Your task to perform on an android device: check google app version Image 0: 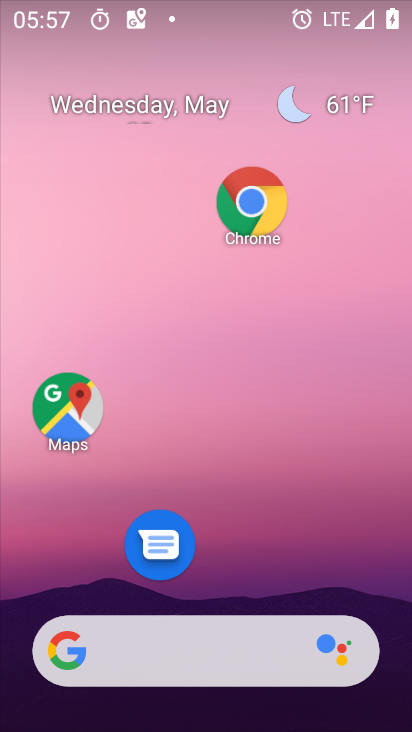
Step 0: drag from (221, 616) to (220, 198)
Your task to perform on an android device: check google app version Image 1: 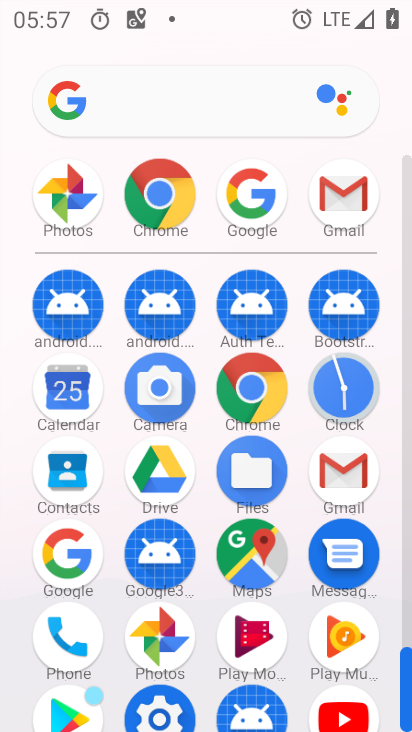
Step 1: click (59, 558)
Your task to perform on an android device: check google app version Image 2: 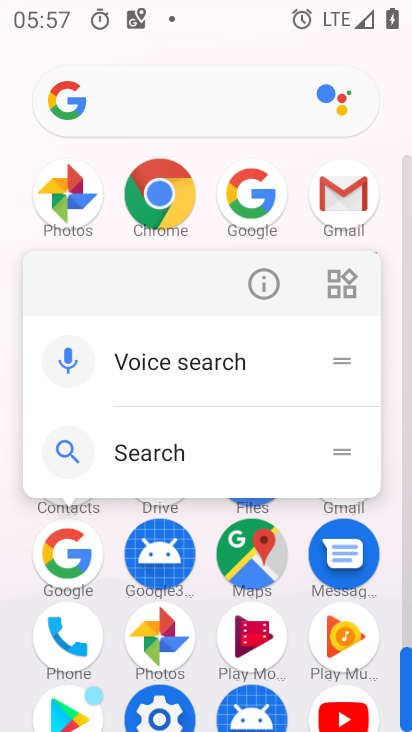
Step 2: click (261, 285)
Your task to perform on an android device: check google app version Image 3: 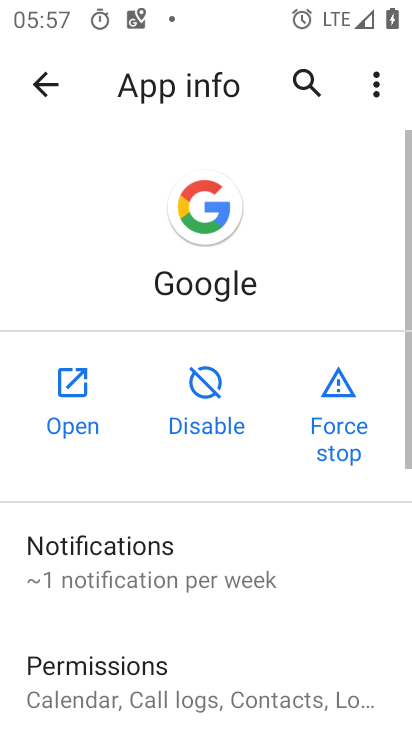
Step 3: drag from (196, 700) to (200, 409)
Your task to perform on an android device: check google app version Image 4: 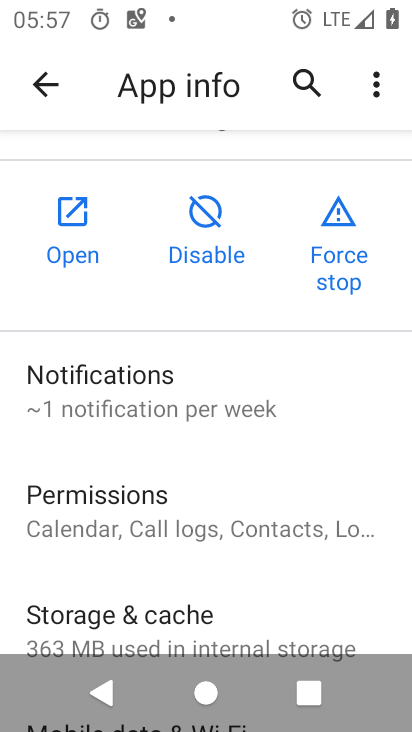
Step 4: drag from (201, 622) to (201, 342)
Your task to perform on an android device: check google app version Image 5: 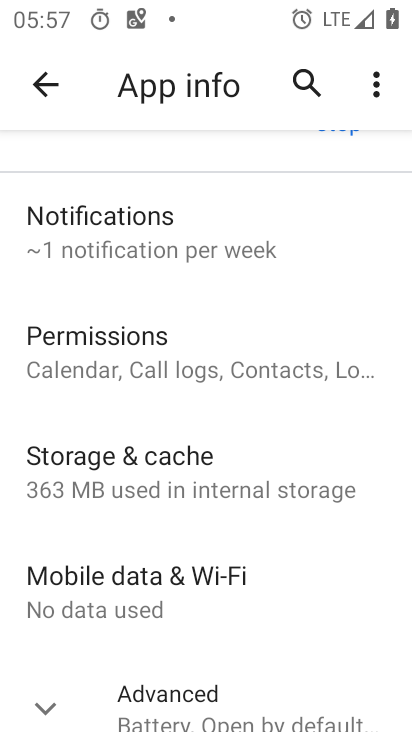
Step 5: drag from (195, 709) to (198, 498)
Your task to perform on an android device: check google app version Image 6: 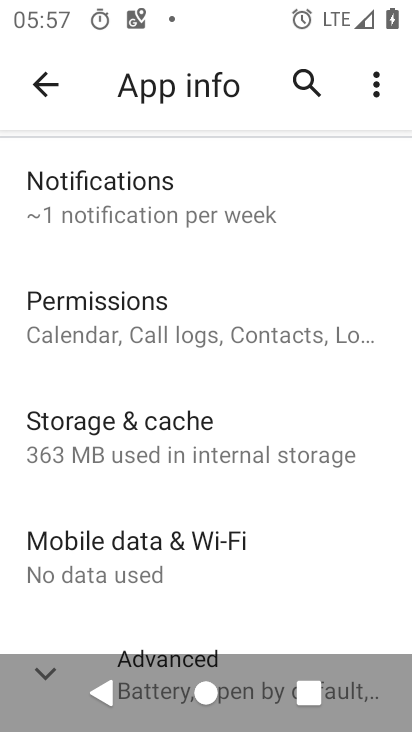
Step 6: drag from (225, 621) to (225, 290)
Your task to perform on an android device: check google app version Image 7: 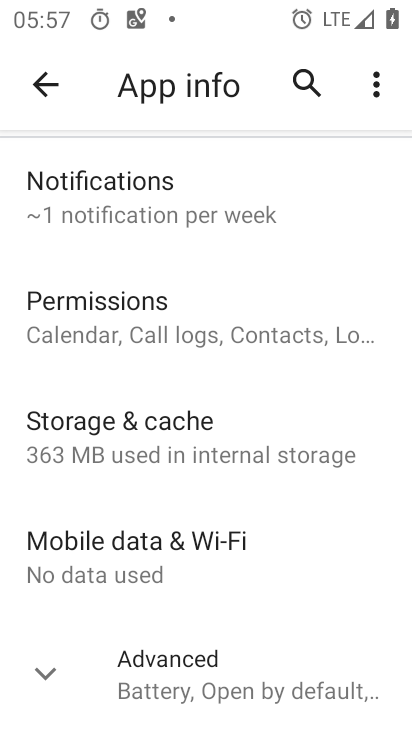
Step 7: click (167, 677)
Your task to perform on an android device: check google app version Image 8: 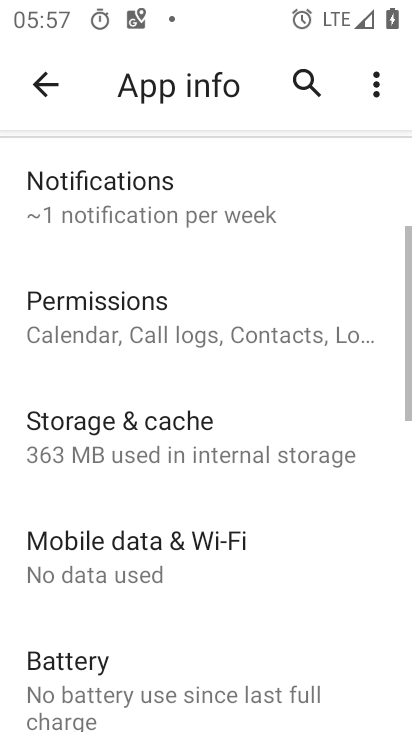
Step 8: task complete